Your task to perform on an android device: turn on showing notifications on the lock screen Image 0: 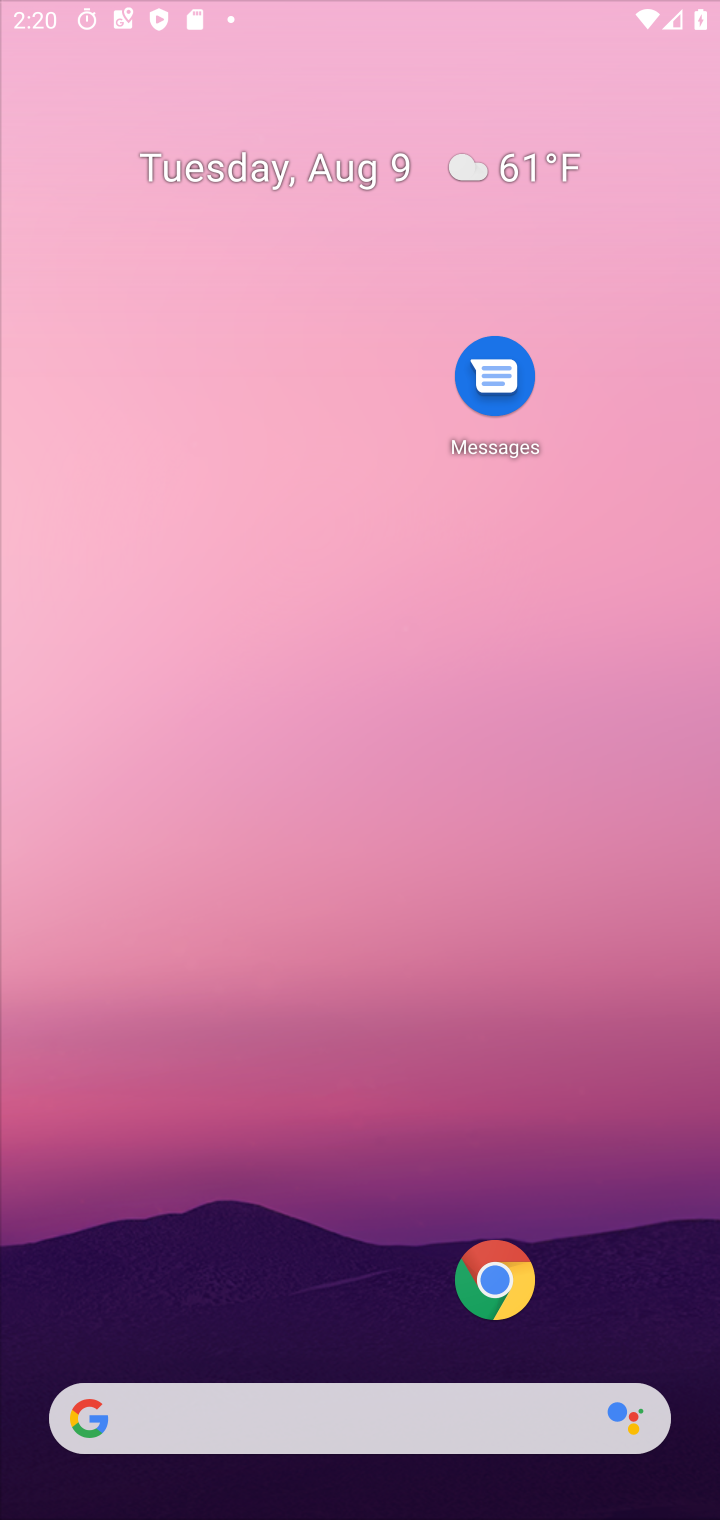
Step 0: press home button
Your task to perform on an android device: turn on showing notifications on the lock screen Image 1: 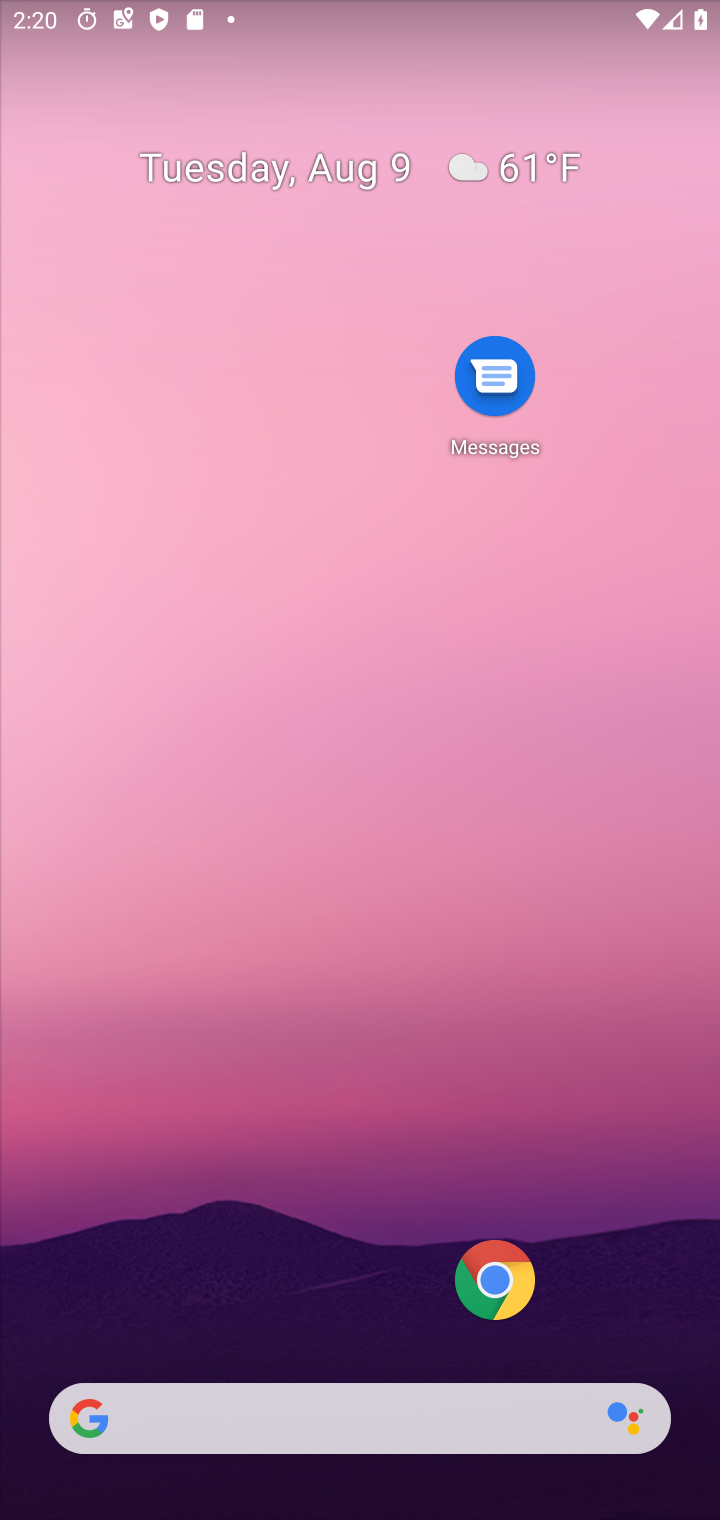
Step 1: press home button
Your task to perform on an android device: turn on showing notifications on the lock screen Image 2: 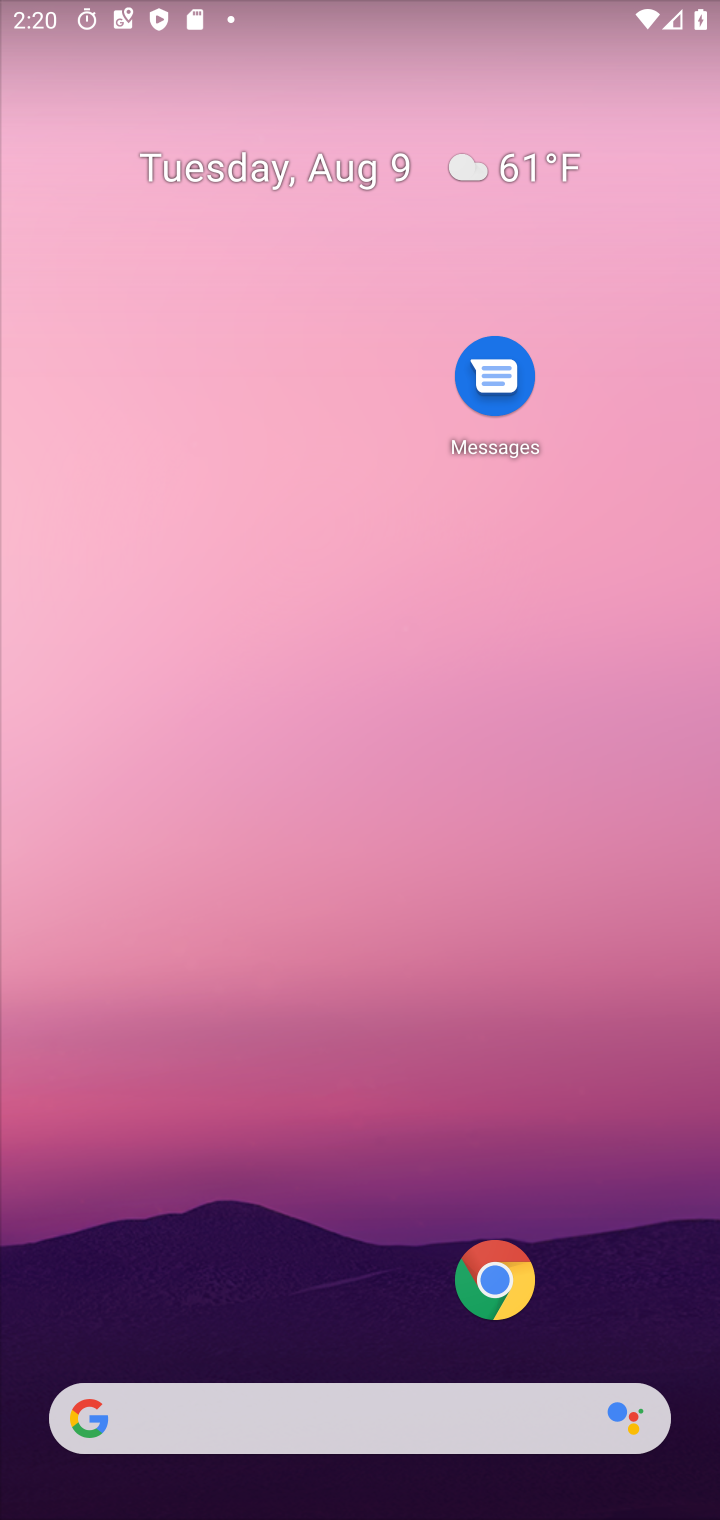
Step 2: drag from (350, 1288) to (644, 54)
Your task to perform on an android device: turn on showing notifications on the lock screen Image 3: 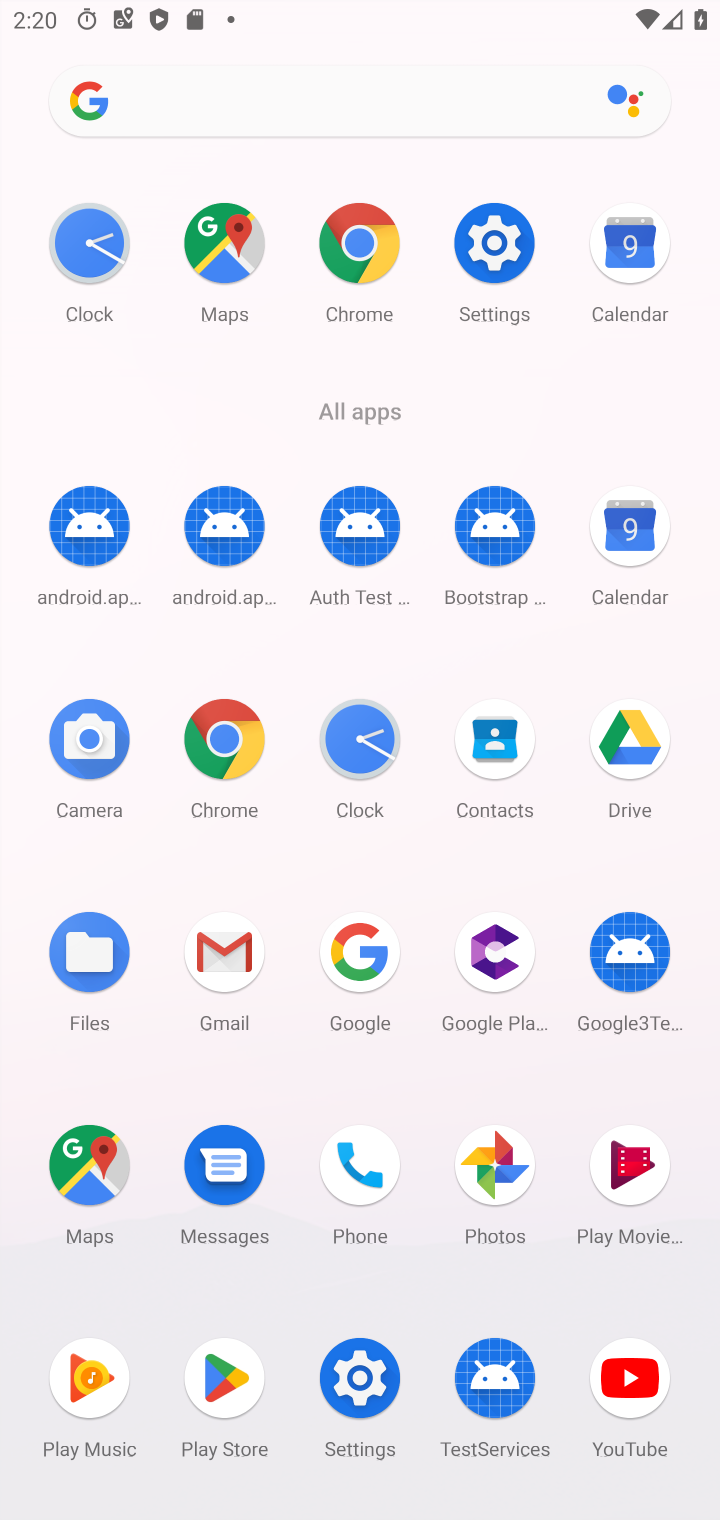
Step 3: click (484, 234)
Your task to perform on an android device: turn on showing notifications on the lock screen Image 4: 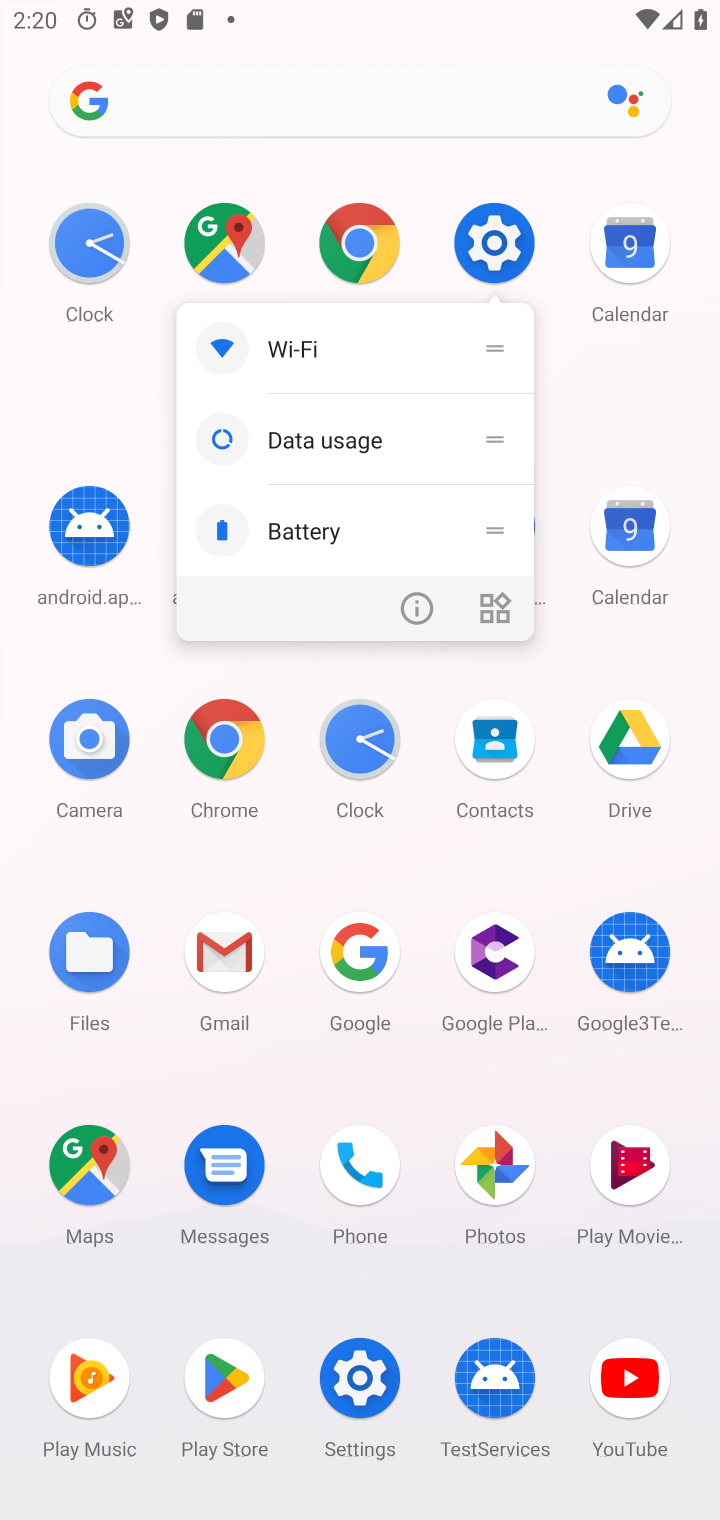
Step 4: click (486, 243)
Your task to perform on an android device: turn on showing notifications on the lock screen Image 5: 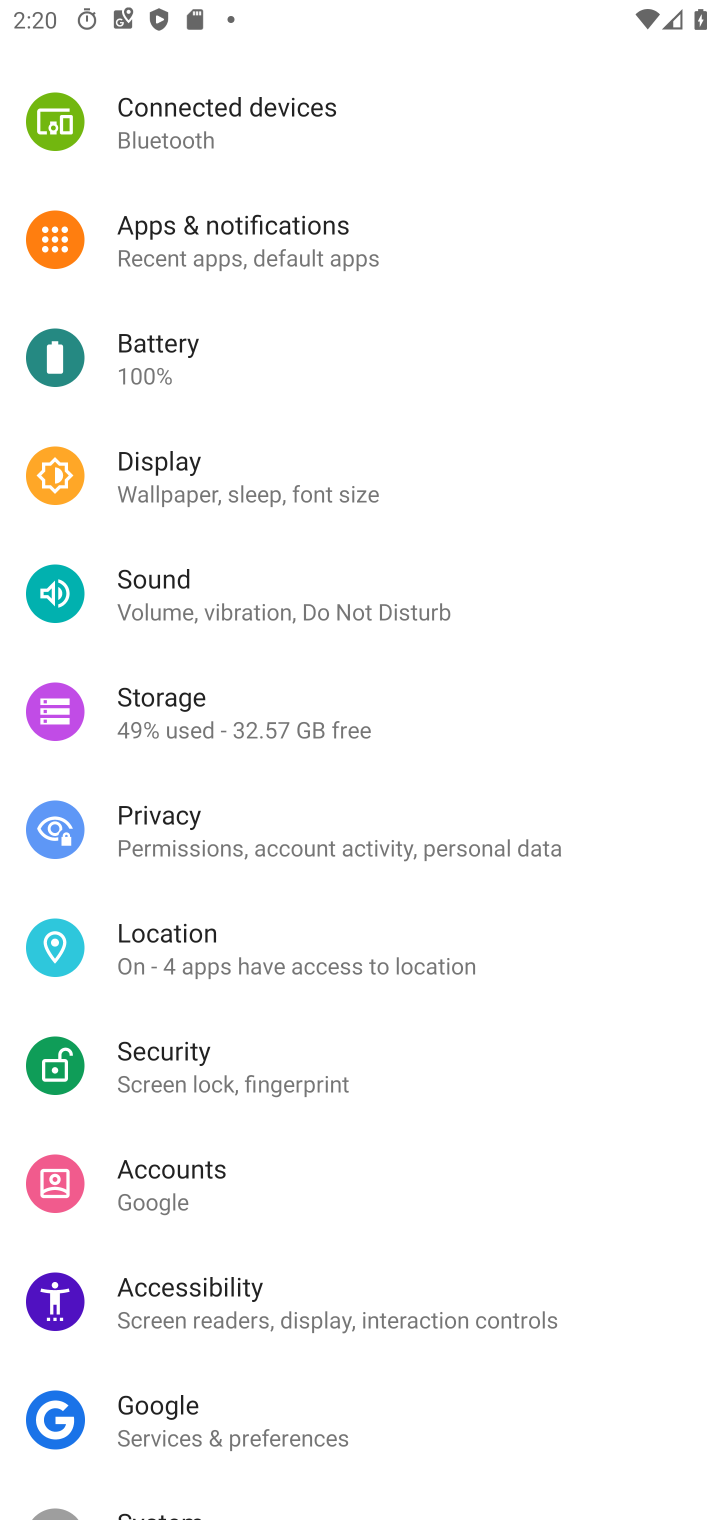
Step 5: click (258, 244)
Your task to perform on an android device: turn on showing notifications on the lock screen Image 6: 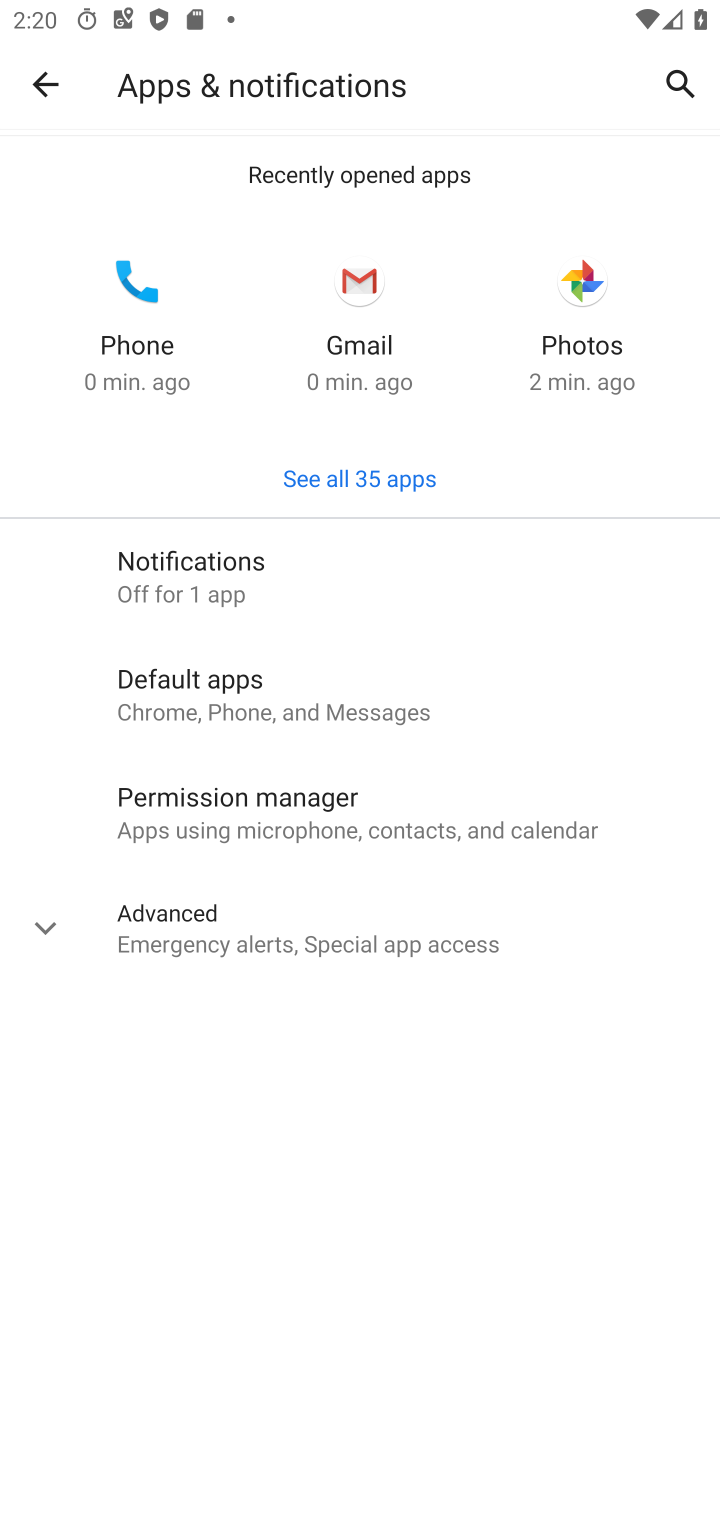
Step 6: click (237, 578)
Your task to perform on an android device: turn on showing notifications on the lock screen Image 7: 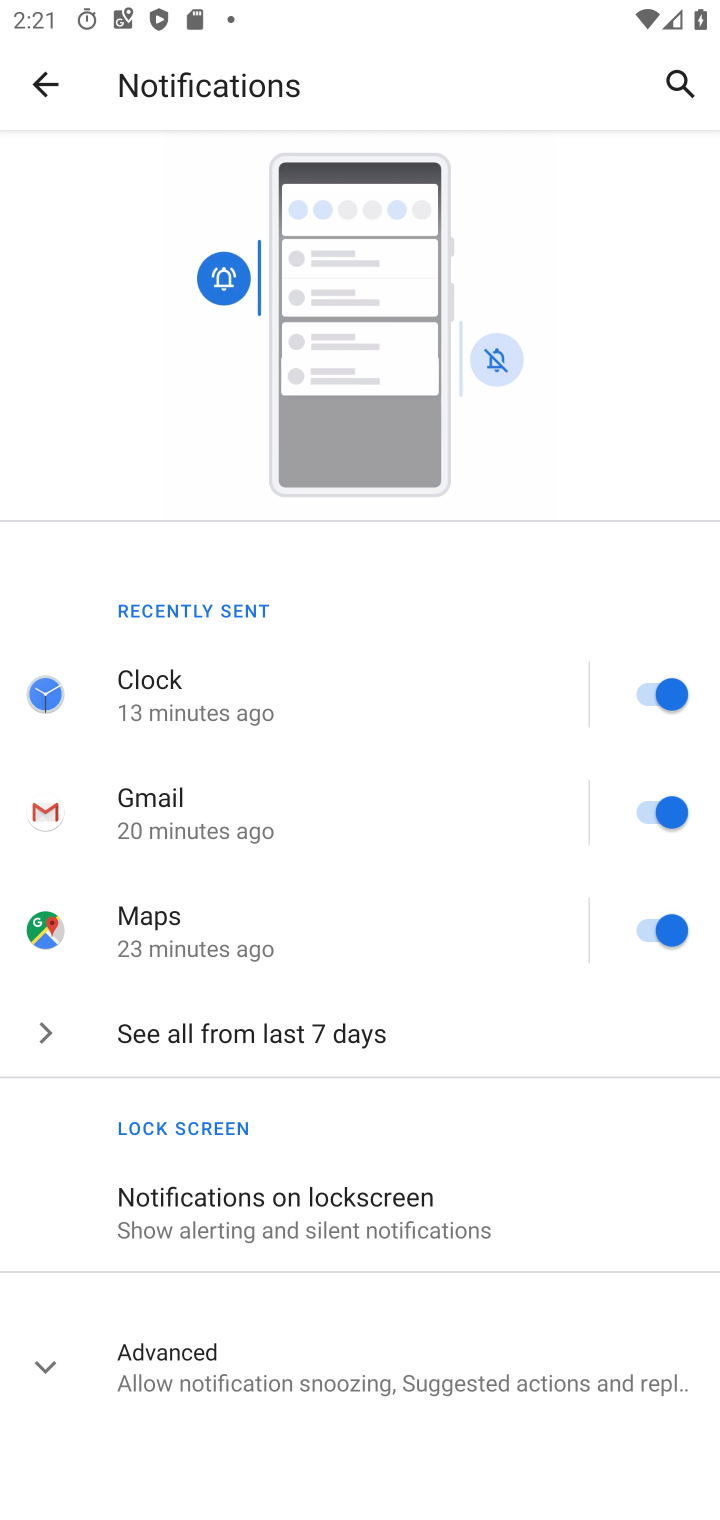
Step 7: click (337, 1196)
Your task to perform on an android device: turn on showing notifications on the lock screen Image 8: 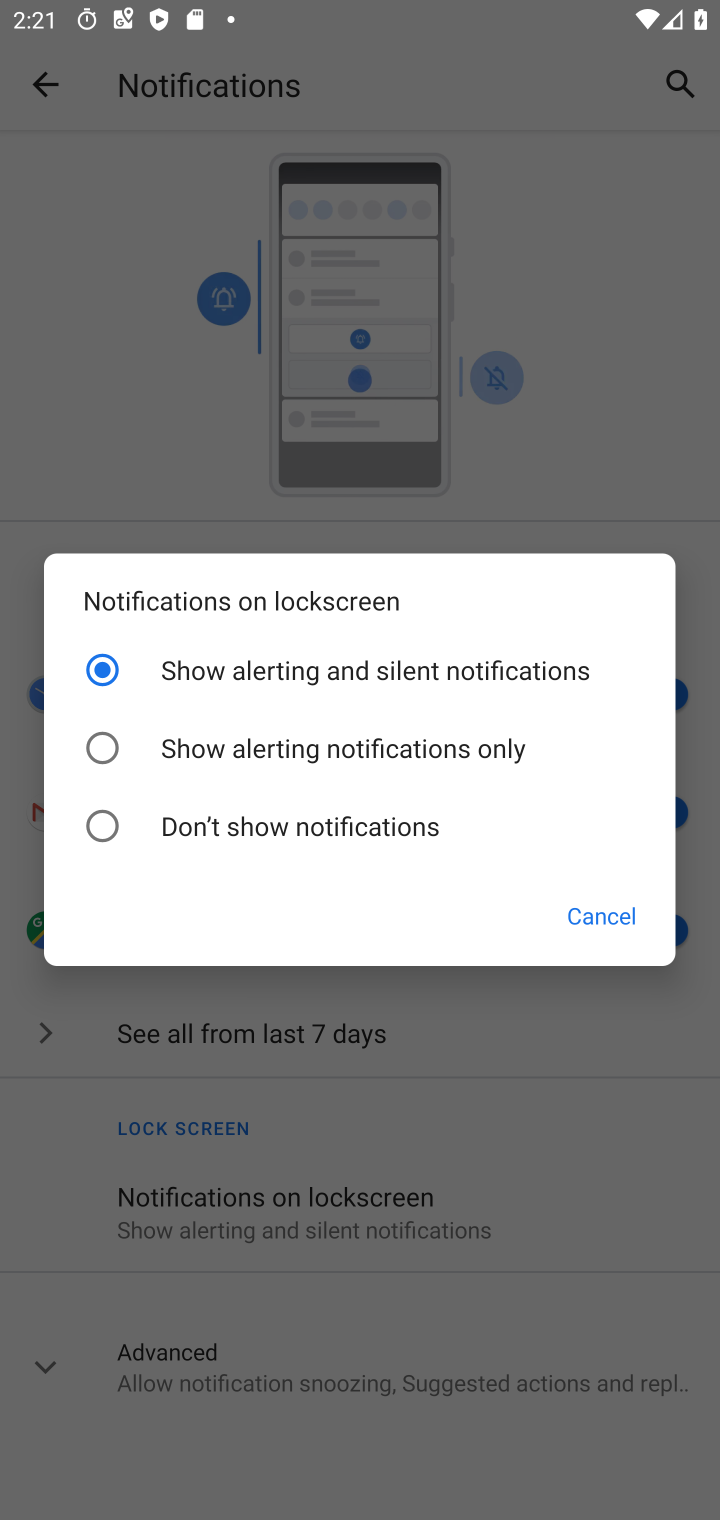
Step 8: task complete